Your task to perform on an android device: Go to CNN.com Image 0: 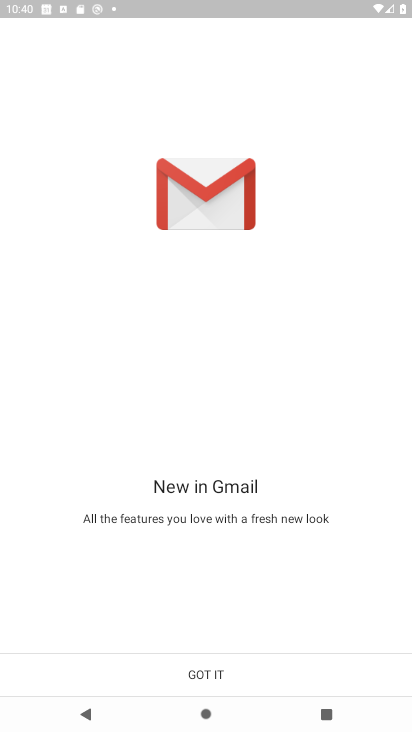
Step 0: press home button
Your task to perform on an android device: Go to CNN.com Image 1: 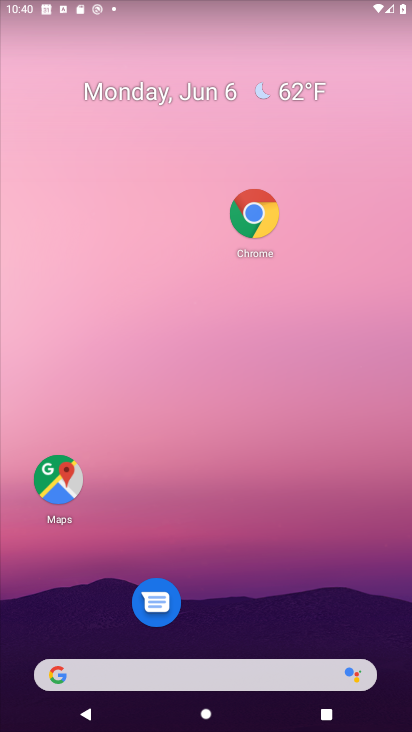
Step 1: click (240, 227)
Your task to perform on an android device: Go to CNN.com Image 2: 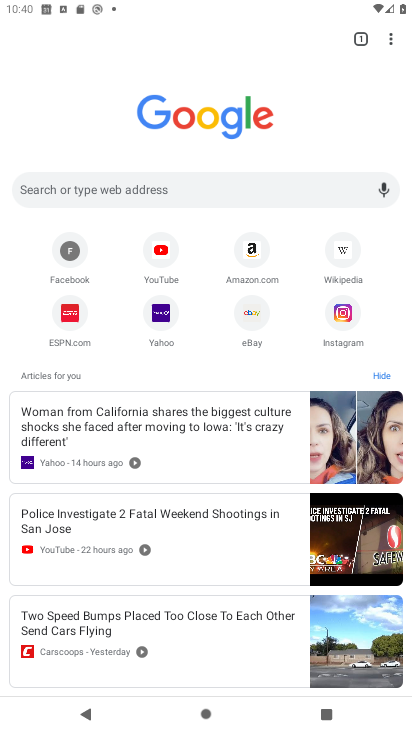
Step 2: click (106, 195)
Your task to perform on an android device: Go to CNN.com Image 3: 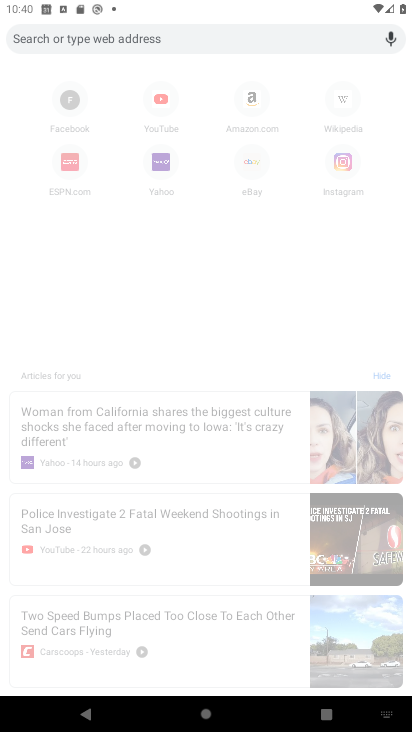
Step 3: click (320, 31)
Your task to perform on an android device: Go to CNN.com Image 4: 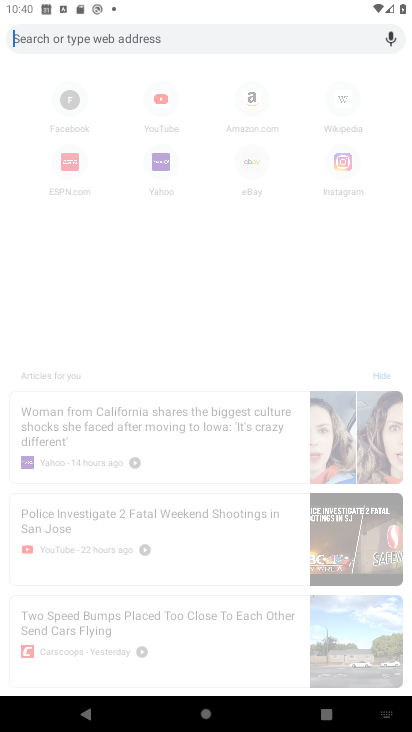
Step 4: type "nn"
Your task to perform on an android device: Go to CNN.com Image 5: 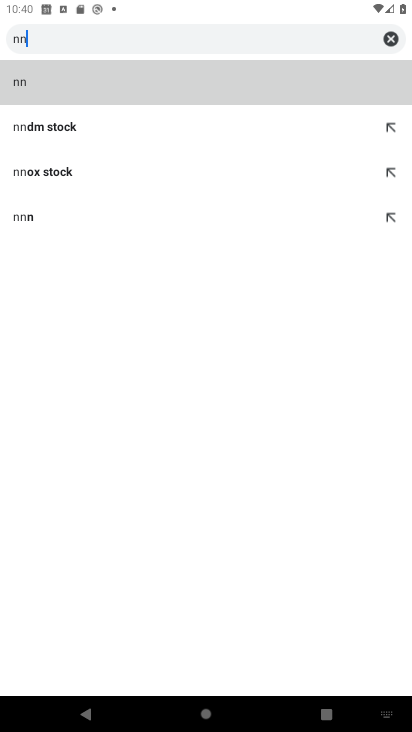
Step 5: click (392, 43)
Your task to perform on an android device: Go to CNN.com Image 6: 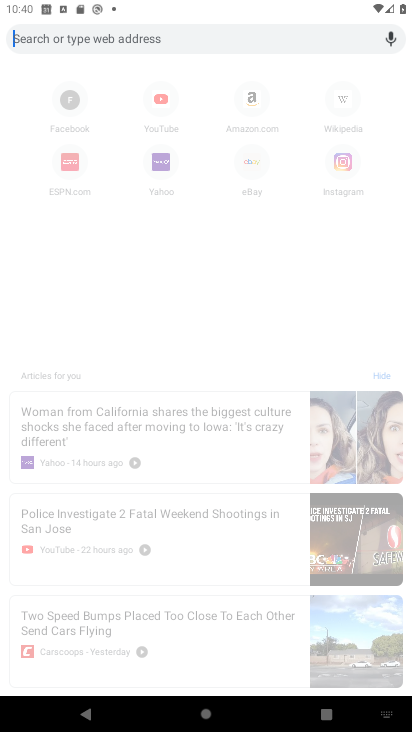
Step 6: type "cnn"
Your task to perform on an android device: Go to CNN.com Image 7: 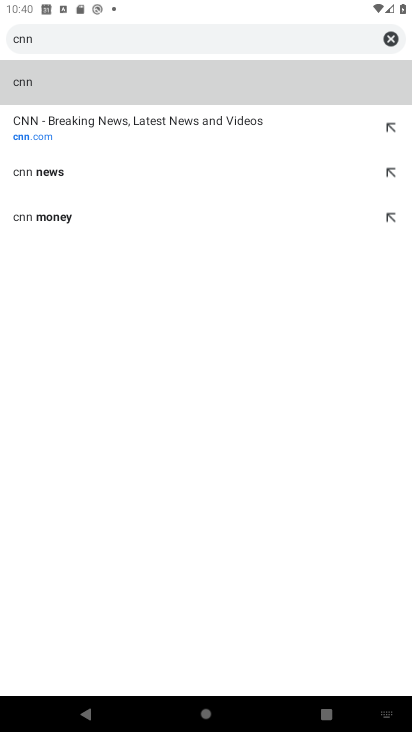
Step 7: click (281, 127)
Your task to perform on an android device: Go to CNN.com Image 8: 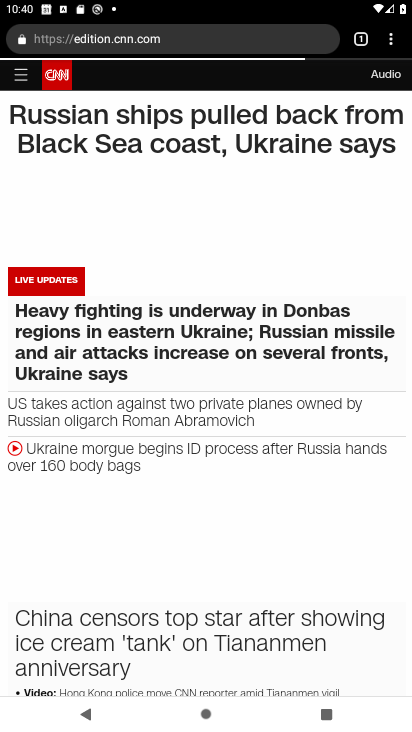
Step 8: task complete